Your task to perform on an android device: check out phone information Image 0: 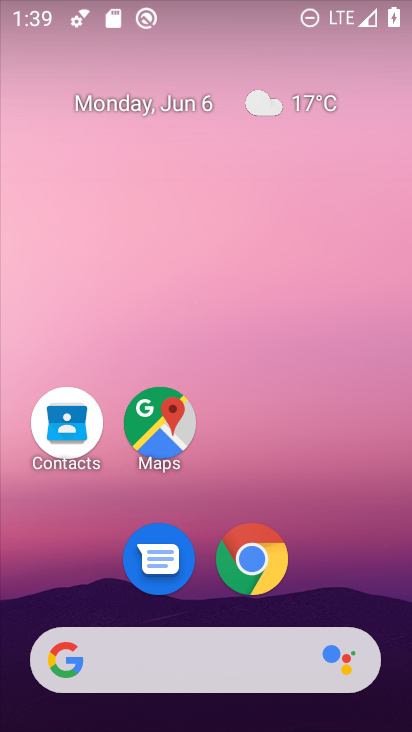
Step 0: drag from (238, 597) to (228, 102)
Your task to perform on an android device: check out phone information Image 1: 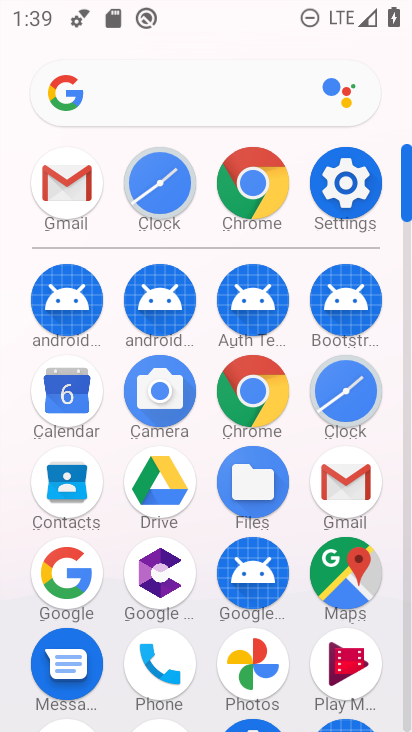
Step 1: click (338, 200)
Your task to perform on an android device: check out phone information Image 2: 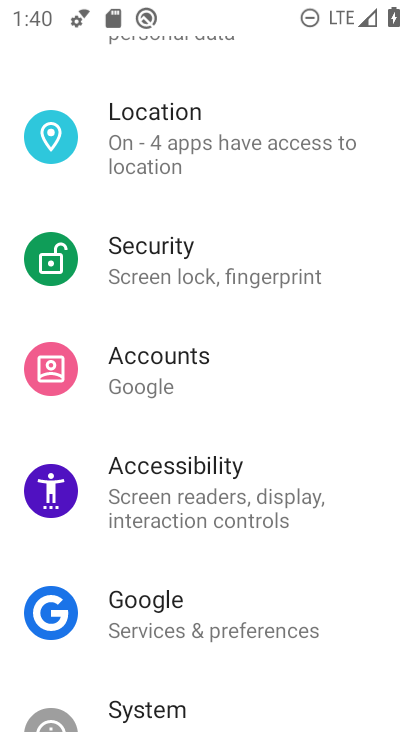
Step 2: drag from (260, 628) to (254, 136)
Your task to perform on an android device: check out phone information Image 3: 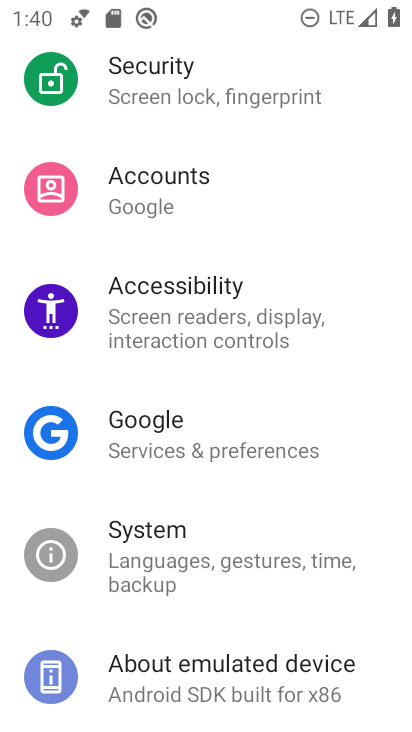
Step 3: drag from (183, 583) to (193, 86)
Your task to perform on an android device: check out phone information Image 4: 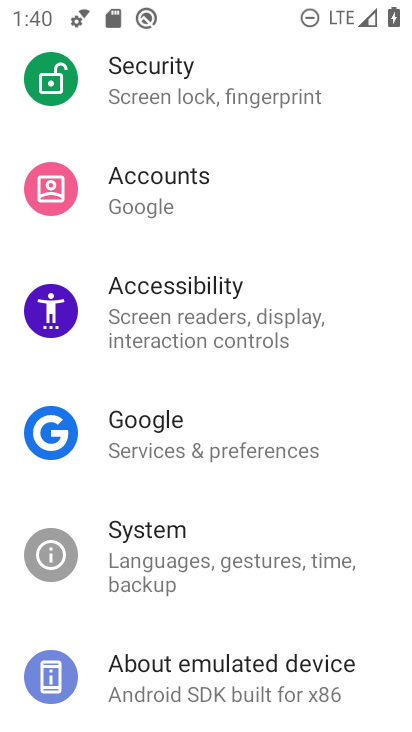
Step 4: click (193, 681)
Your task to perform on an android device: check out phone information Image 5: 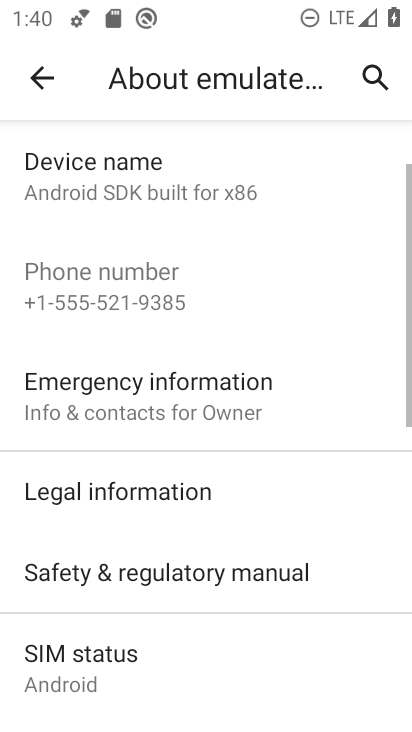
Step 5: task complete